Your task to perform on an android device: remove spam from my inbox in the gmail app Image 0: 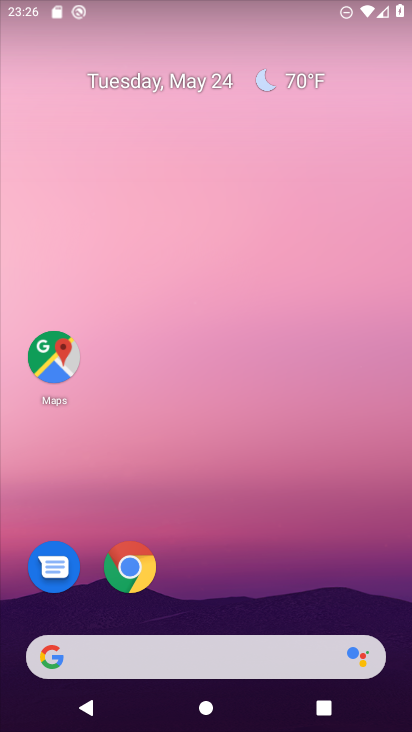
Step 0: drag from (281, 562) to (163, 64)
Your task to perform on an android device: remove spam from my inbox in the gmail app Image 1: 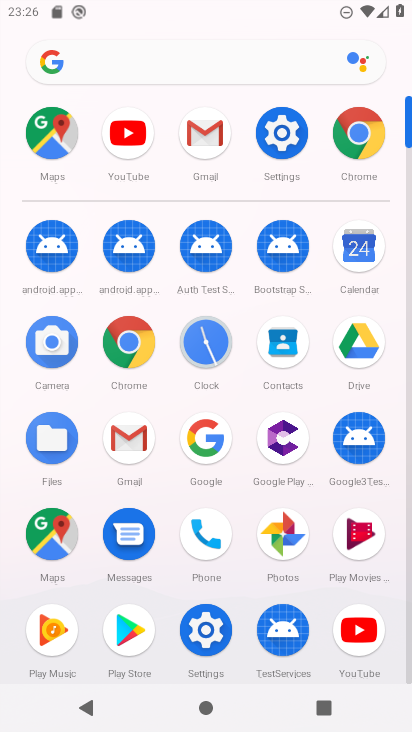
Step 1: click (135, 446)
Your task to perform on an android device: remove spam from my inbox in the gmail app Image 2: 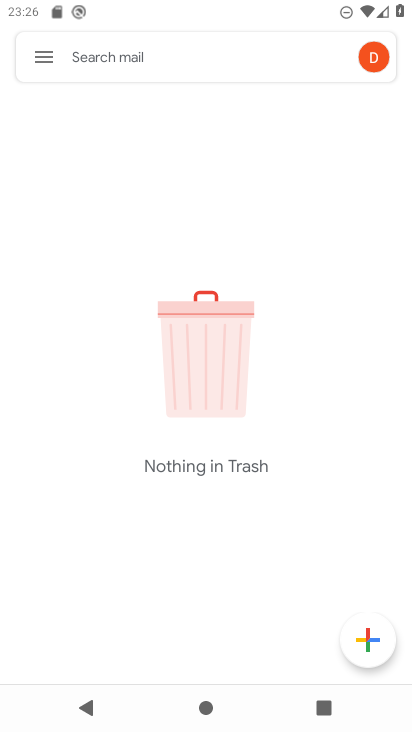
Step 2: click (46, 61)
Your task to perform on an android device: remove spam from my inbox in the gmail app Image 3: 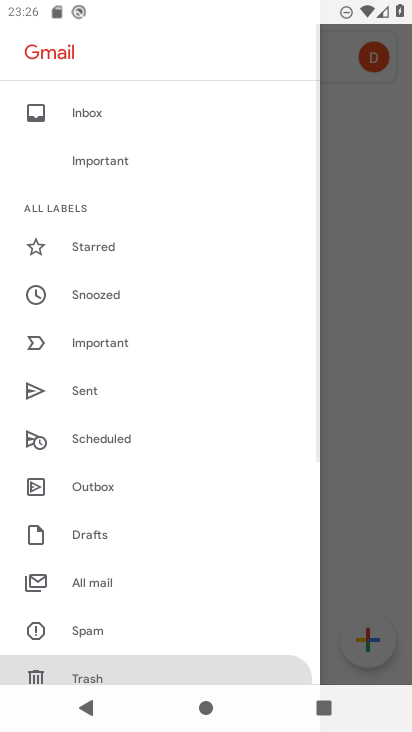
Step 3: click (129, 622)
Your task to perform on an android device: remove spam from my inbox in the gmail app Image 4: 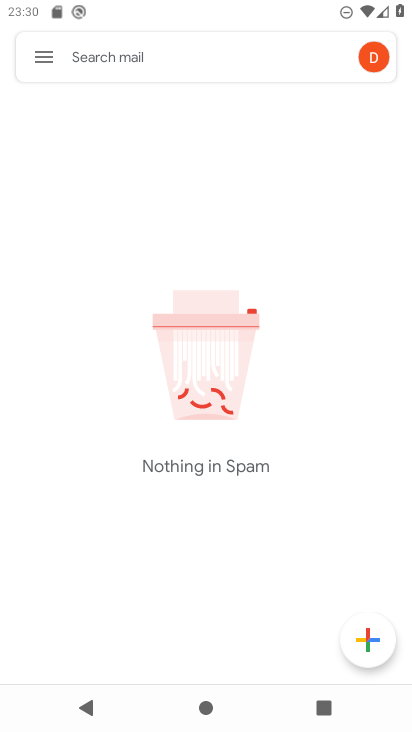
Step 4: task complete